Your task to perform on an android device: Go to calendar. Show me events next week Image 0: 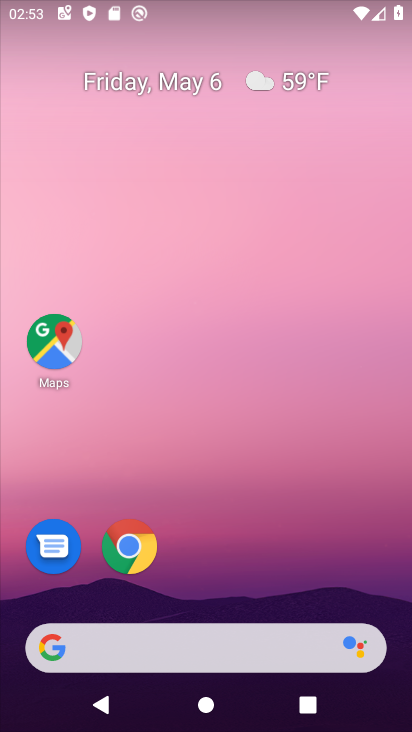
Step 0: drag from (245, 578) to (256, 164)
Your task to perform on an android device: Go to calendar. Show me events next week Image 1: 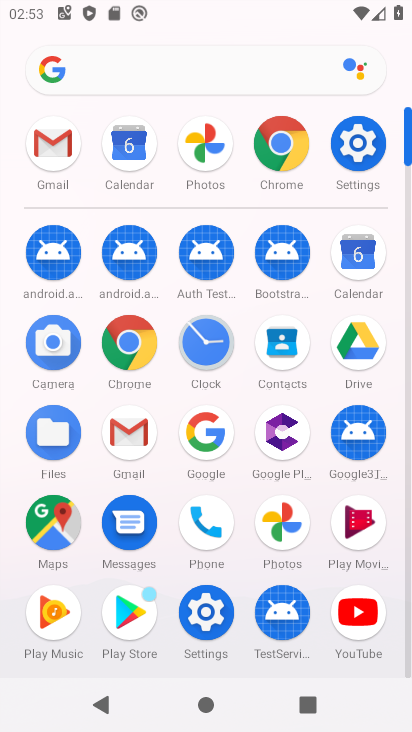
Step 1: click (366, 253)
Your task to perform on an android device: Go to calendar. Show me events next week Image 2: 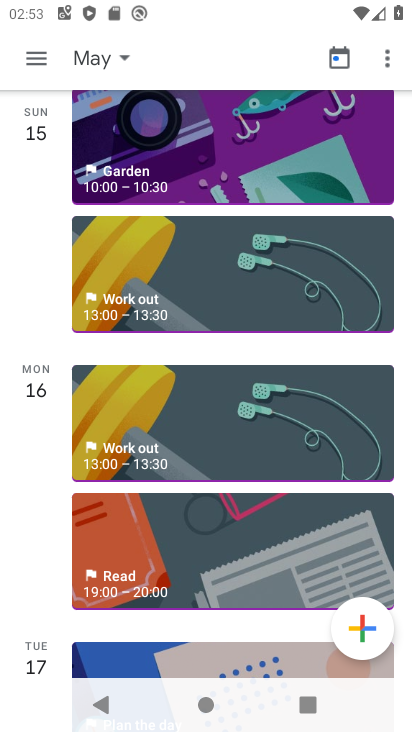
Step 2: click (35, 55)
Your task to perform on an android device: Go to calendar. Show me events next week Image 3: 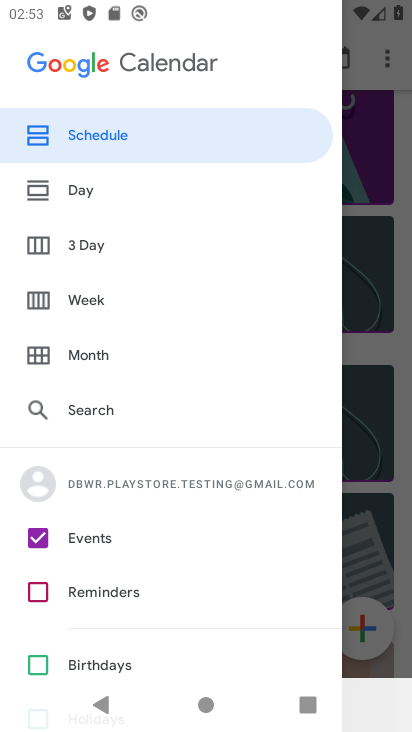
Step 3: click (95, 298)
Your task to perform on an android device: Go to calendar. Show me events next week Image 4: 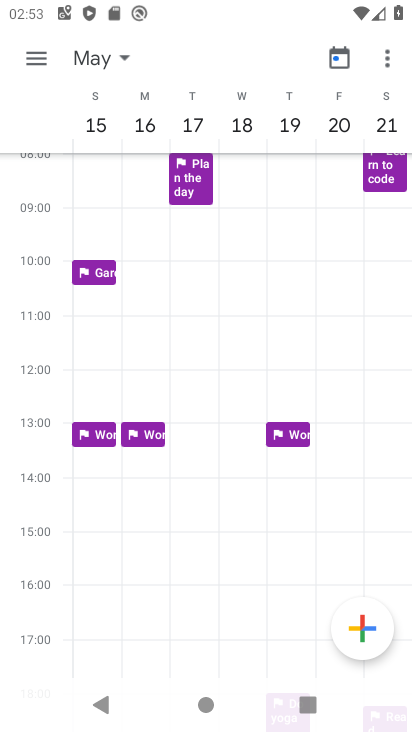
Step 4: task complete